Your task to perform on an android device: Go to settings Image 0: 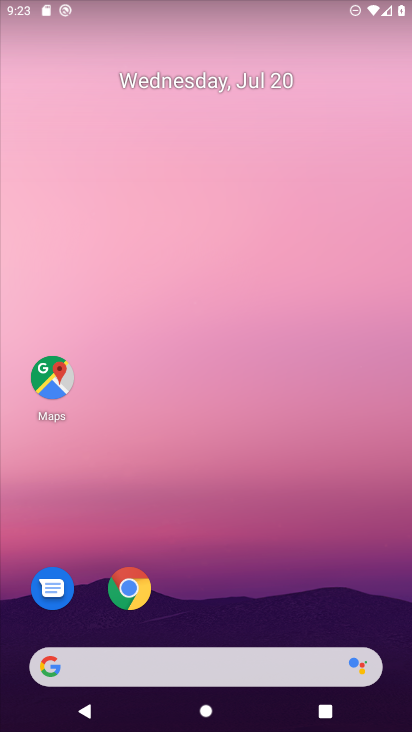
Step 0: drag from (181, 624) to (201, 98)
Your task to perform on an android device: Go to settings Image 1: 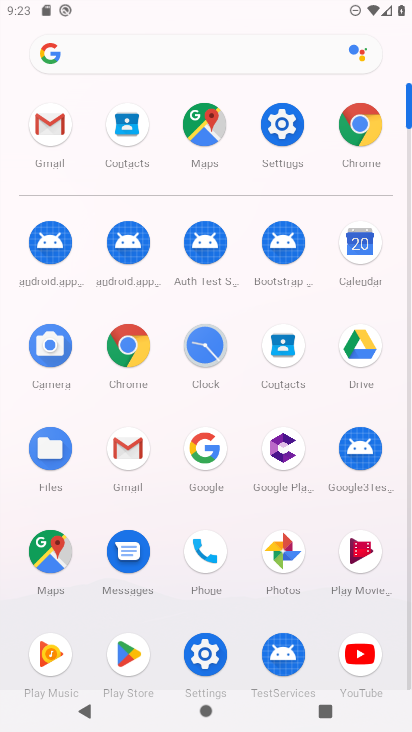
Step 1: click (298, 134)
Your task to perform on an android device: Go to settings Image 2: 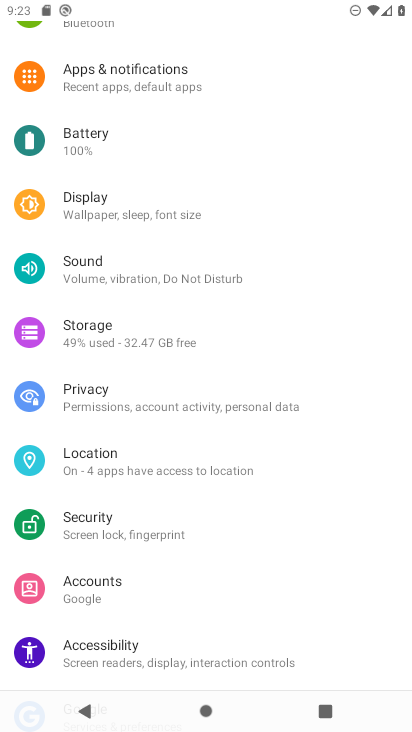
Step 2: task complete